Your task to perform on an android device: Open accessibility settings Image 0: 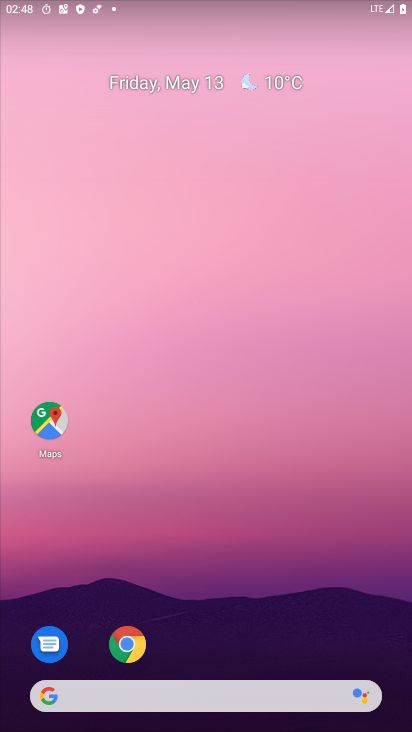
Step 0: drag from (263, 607) to (243, 6)
Your task to perform on an android device: Open accessibility settings Image 1: 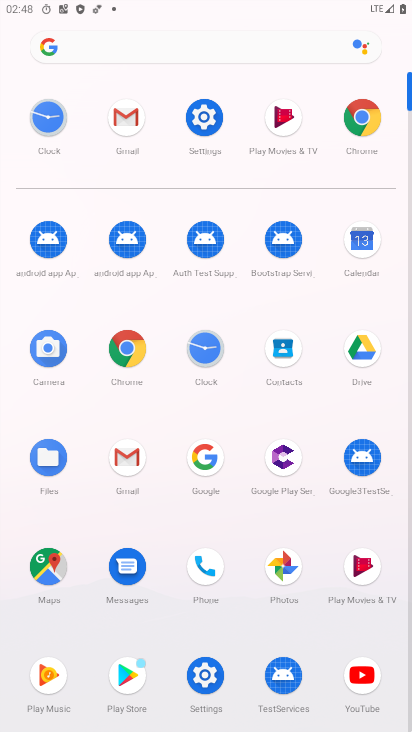
Step 1: click (209, 116)
Your task to perform on an android device: Open accessibility settings Image 2: 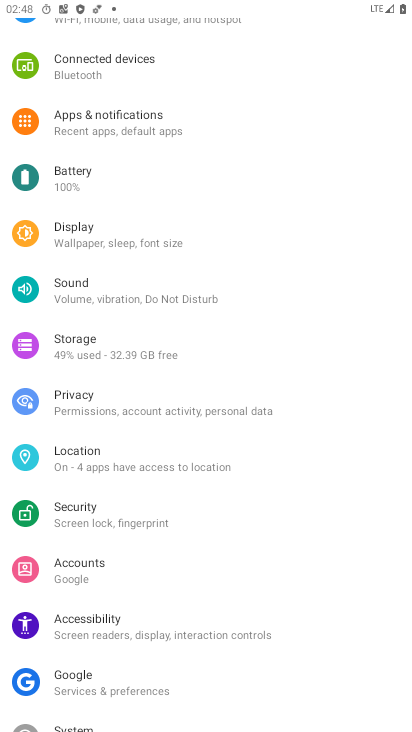
Step 2: drag from (258, 648) to (293, 292)
Your task to perform on an android device: Open accessibility settings Image 3: 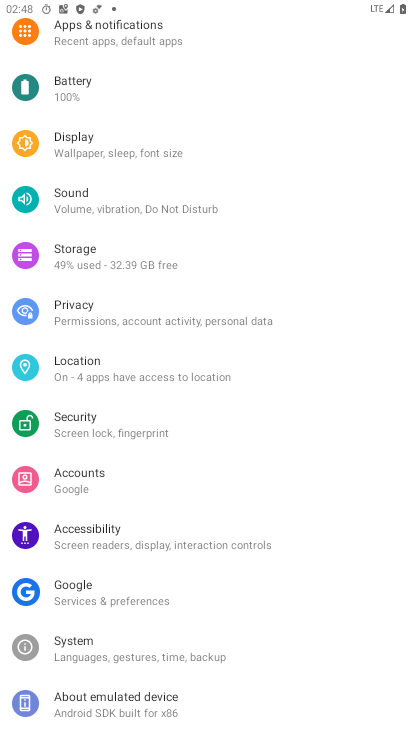
Step 3: click (149, 538)
Your task to perform on an android device: Open accessibility settings Image 4: 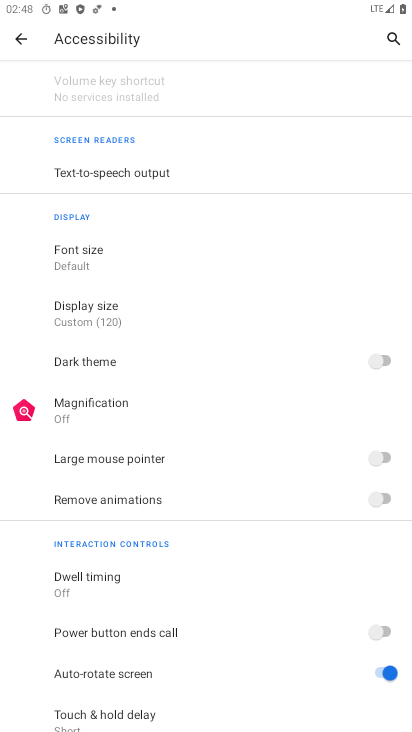
Step 4: task complete